Your task to perform on an android device: Do I have any events tomorrow? Image 0: 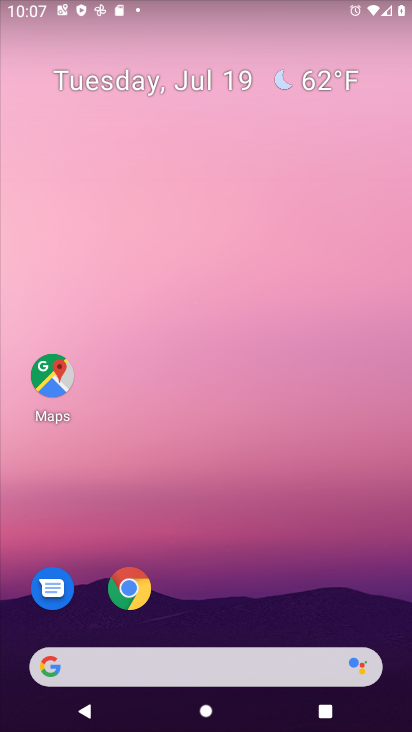
Step 0: drag from (306, 411) to (212, 5)
Your task to perform on an android device: Do I have any events tomorrow? Image 1: 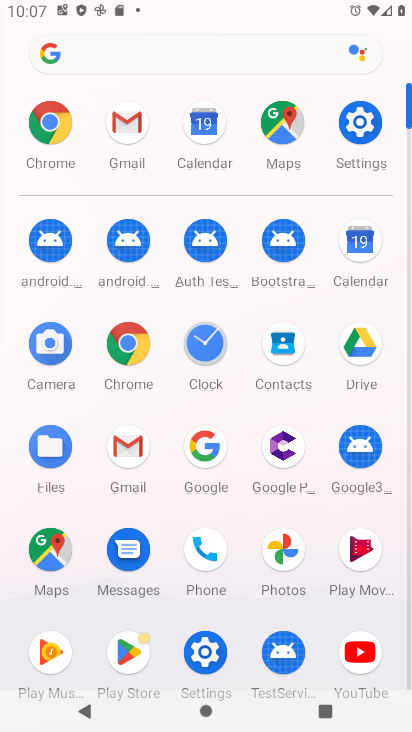
Step 1: click (346, 230)
Your task to perform on an android device: Do I have any events tomorrow? Image 2: 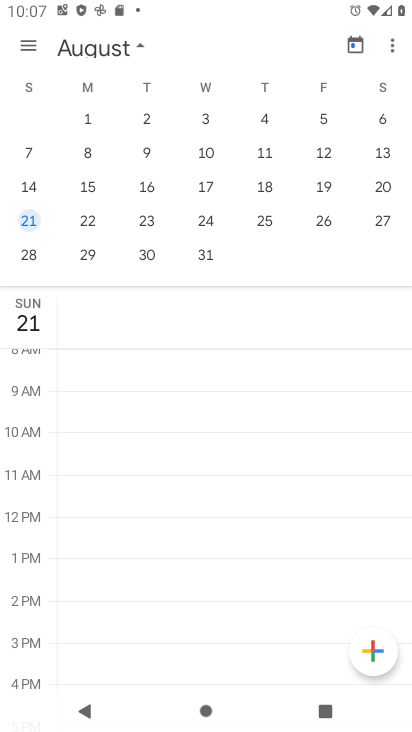
Step 2: click (95, 220)
Your task to perform on an android device: Do I have any events tomorrow? Image 3: 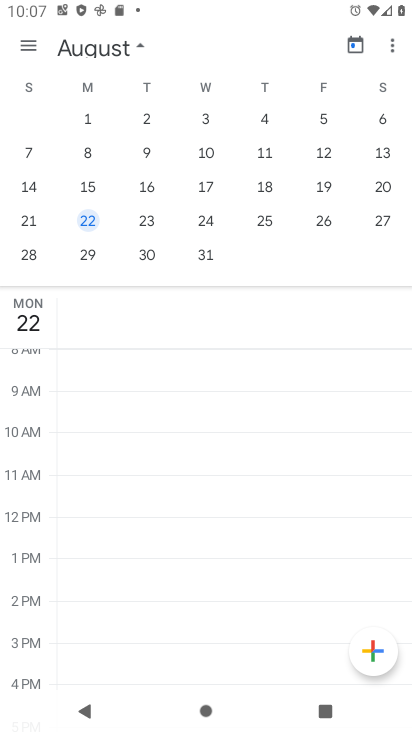
Step 3: task complete